Your task to perform on an android device: turn pop-ups off in chrome Image 0: 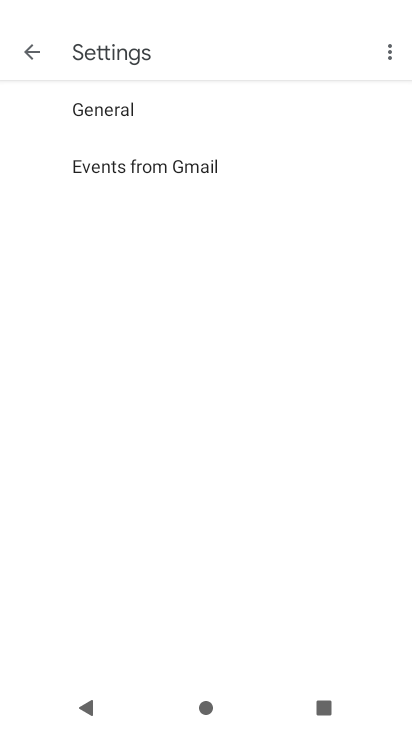
Step 0: press home button
Your task to perform on an android device: turn pop-ups off in chrome Image 1: 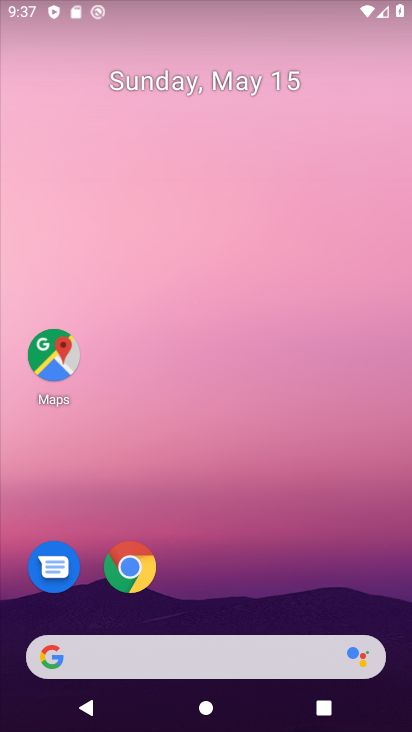
Step 1: click (132, 566)
Your task to perform on an android device: turn pop-ups off in chrome Image 2: 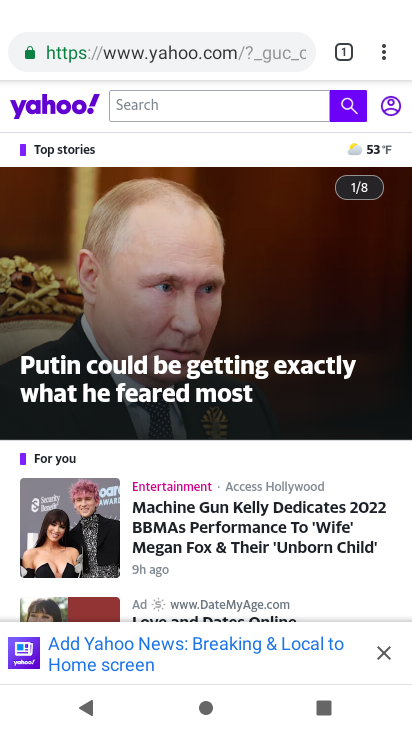
Step 2: click (373, 59)
Your task to perform on an android device: turn pop-ups off in chrome Image 3: 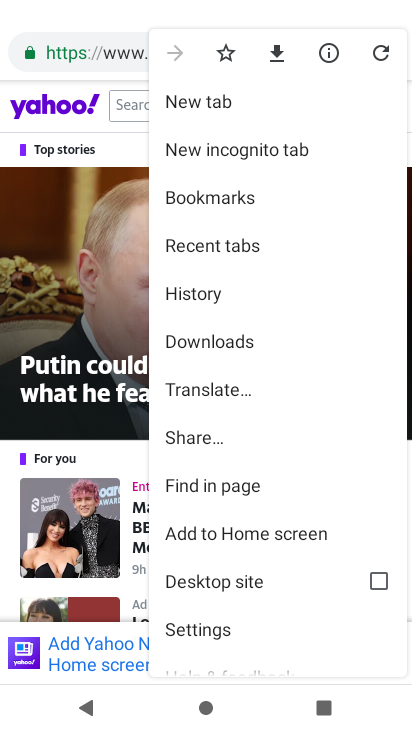
Step 3: click (225, 633)
Your task to perform on an android device: turn pop-ups off in chrome Image 4: 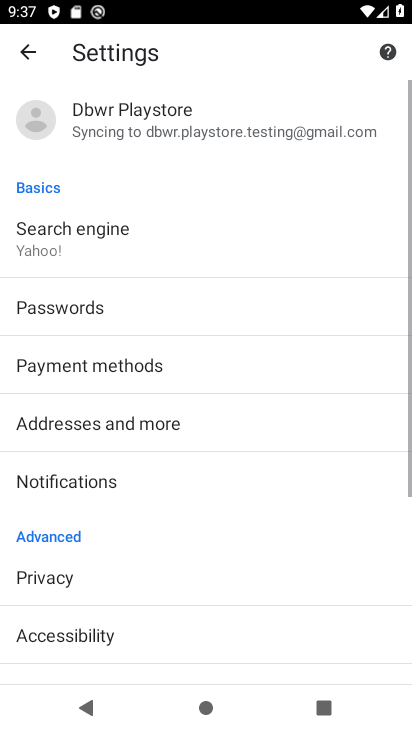
Step 4: drag from (142, 490) to (79, 179)
Your task to perform on an android device: turn pop-ups off in chrome Image 5: 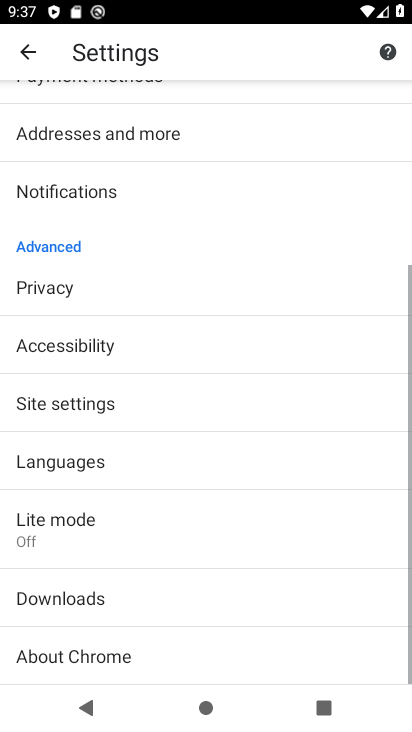
Step 5: click (86, 421)
Your task to perform on an android device: turn pop-ups off in chrome Image 6: 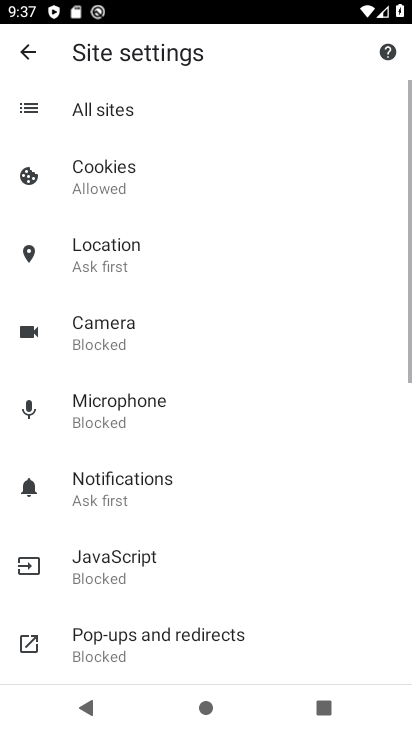
Step 6: click (157, 648)
Your task to perform on an android device: turn pop-ups off in chrome Image 7: 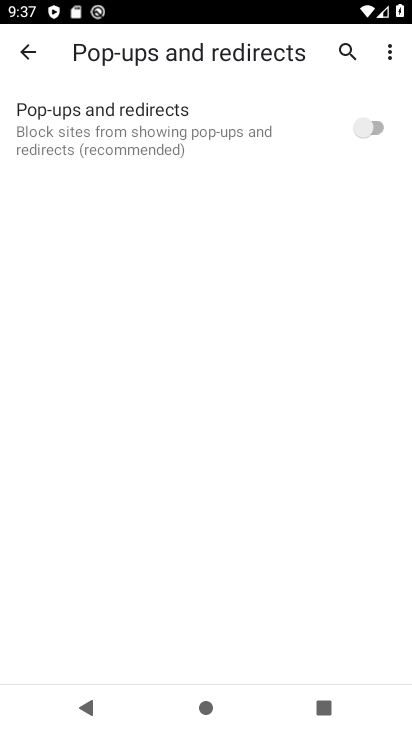
Step 7: task complete